Your task to perform on an android device: What's the weather? Image 0: 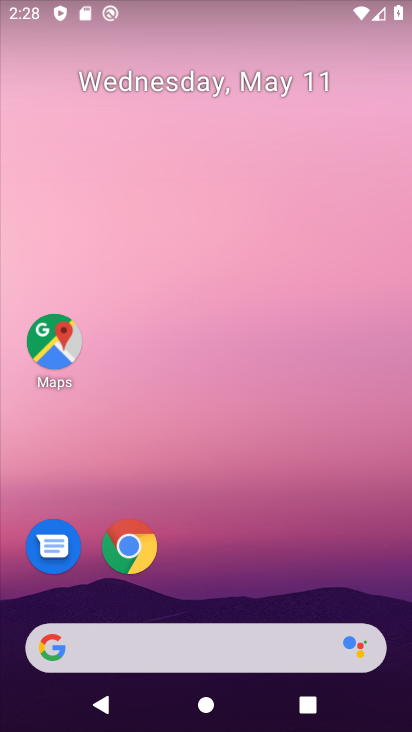
Step 0: drag from (231, 576) to (225, 86)
Your task to perform on an android device: What's the weather? Image 1: 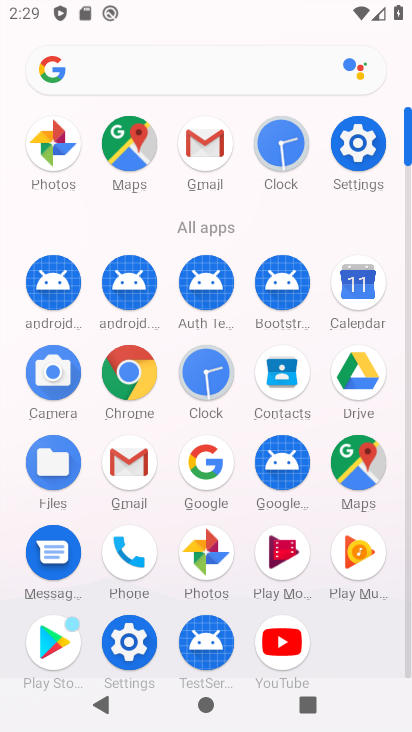
Step 1: click (223, 474)
Your task to perform on an android device: What's the weather? Image 2: 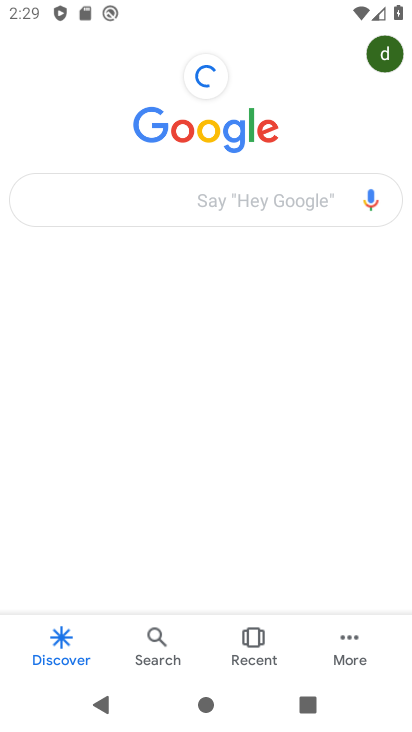
Step 2: click (177, 200)
Your task to perform on an android device: What's the weather? Image 3: 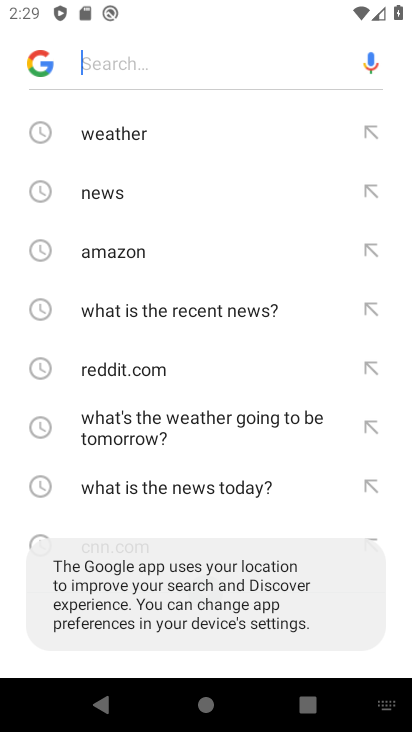
Step 3: click (122, 135)
Your task to perform on an android device: What's the weather? Image 4: 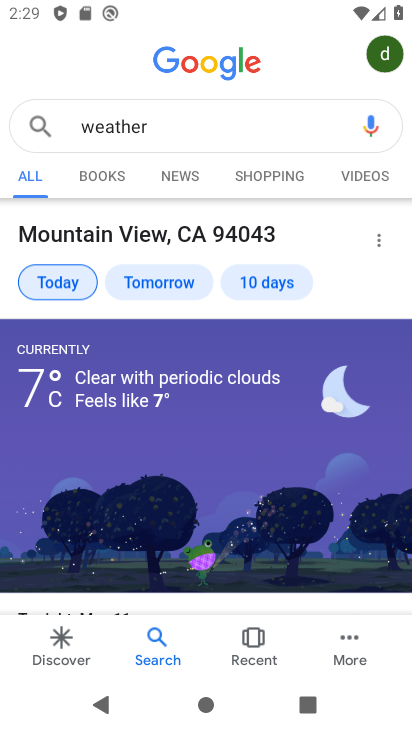
Step 4: task complete